Your task to perform on an android device: Open accessibility settings Image 0: 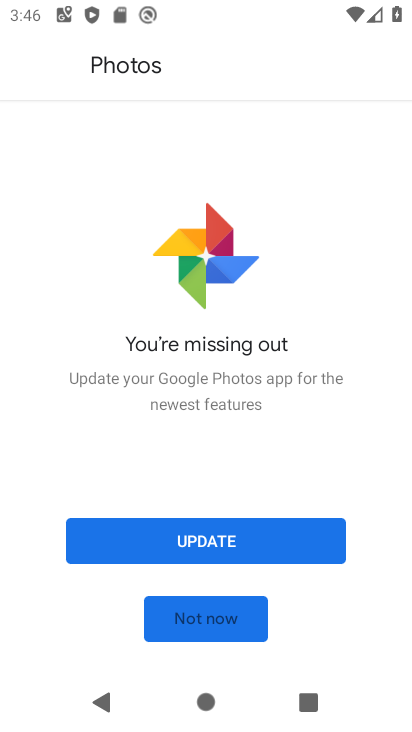
Step 0: press back button
Your task to perform on an android device: Open accessibility settings Image 1: 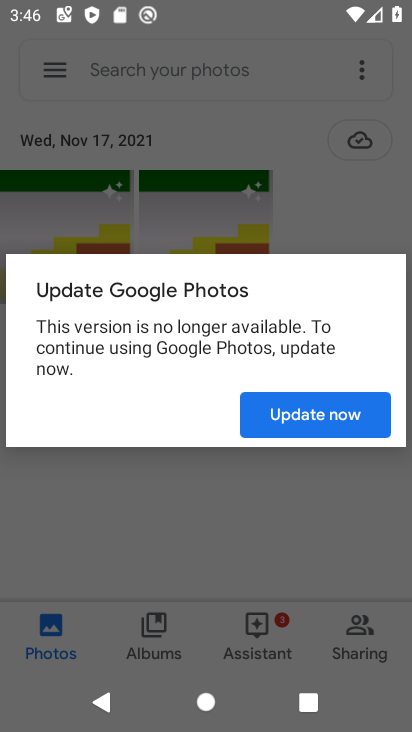
Step 1: press back button
Your task to perform on an android device: Open accessibility settings Image 2: 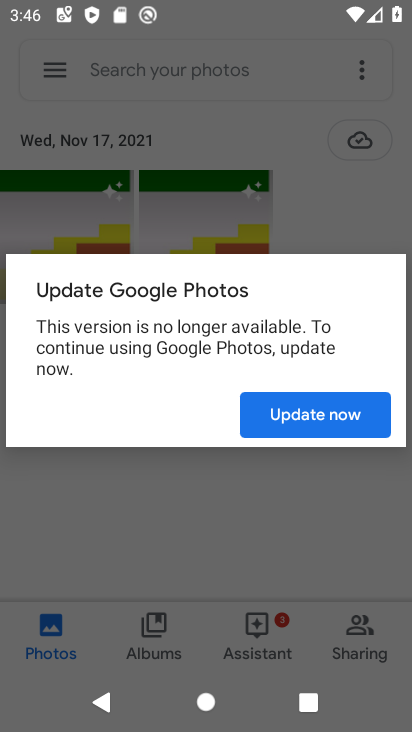
Step 2: press back button
Your task to perform on an android device: Open accessibility settings Image 3: 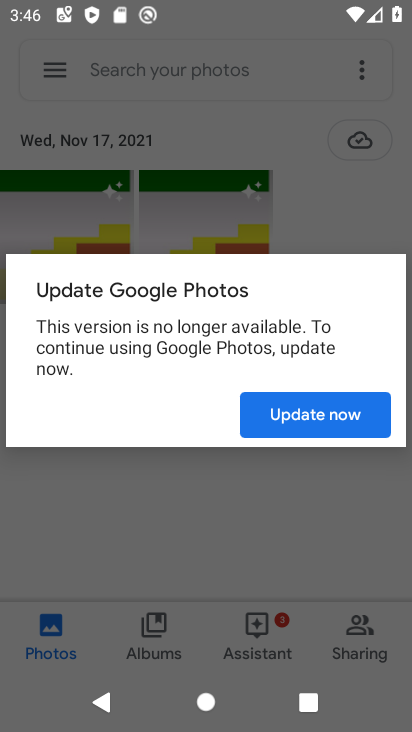
Step 3: press home button
Your task to perform on an android device: Open accessibility settings Image 4: 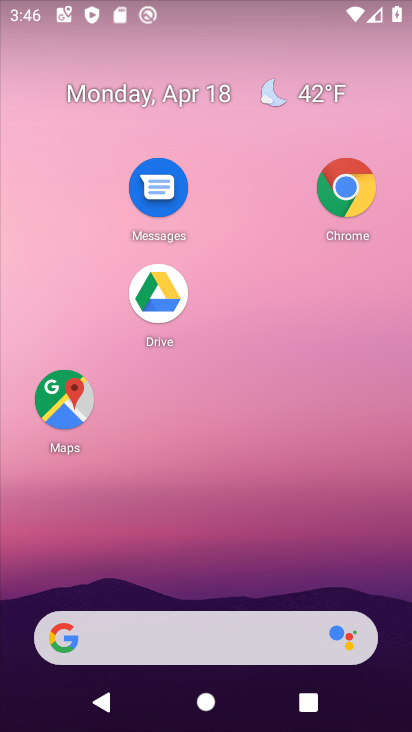
Step 4: drag from (222, 512) to (255, 13)
Your task to perform on an android device: Open accessibility settings Image 5: 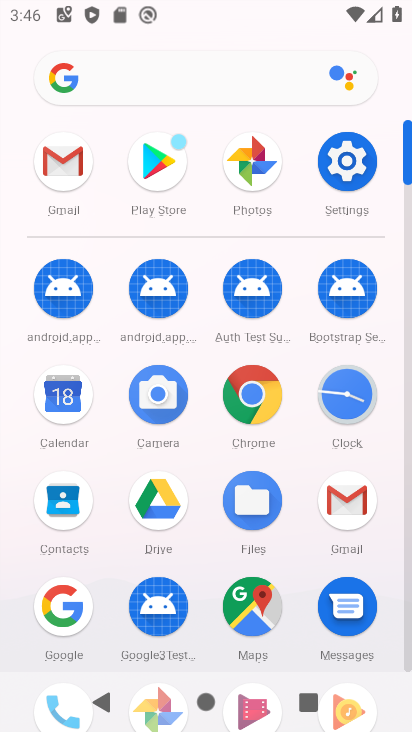
Step 5: click (343, 171)
Your task to perform on an android device: Open accessibility settings Image 6: 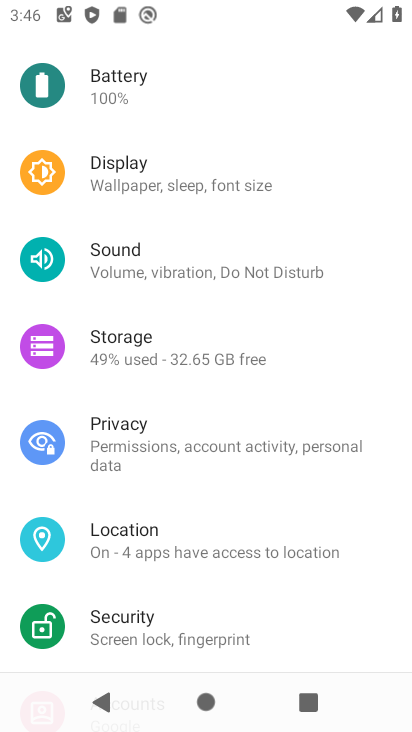
Step 6: drag from (195, 421) to (180, 347)
Your task to perform on an android device: Open accessibility settings Image 7: 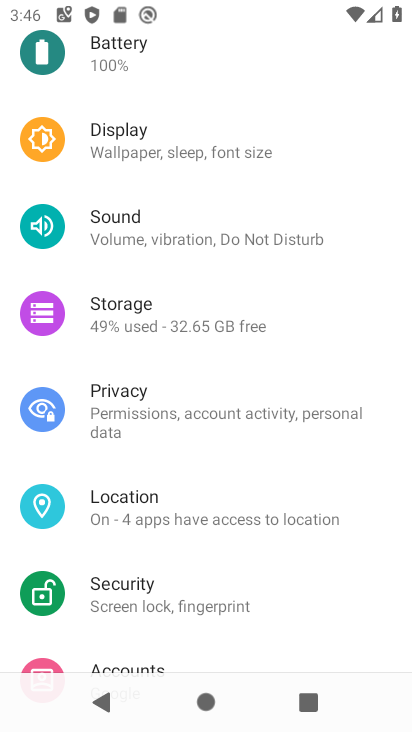
Step 7: drag from (214, 563) to (217, 490)
Your task to perform on an android device: Open accessibility settings Image 8: 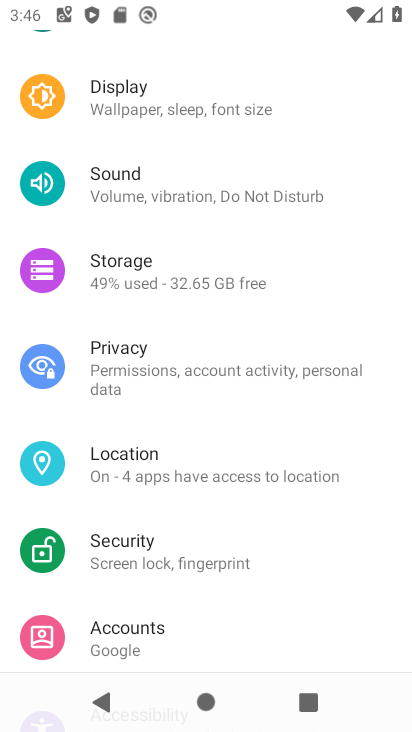
Step 8: drag from (232, 598) to (229, 525)
Your task to perform on an android device: Open accessibility settings Image 9: 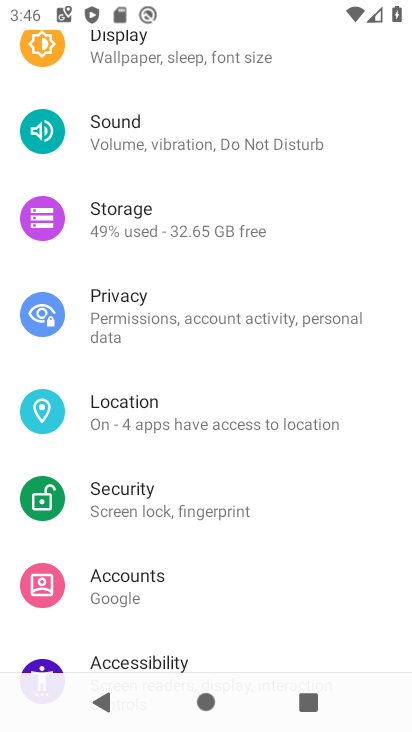
Step 9: drag from (240, 598) to (237, 499)
Your task to perform on an android device: Open accessibility settings Image 10: 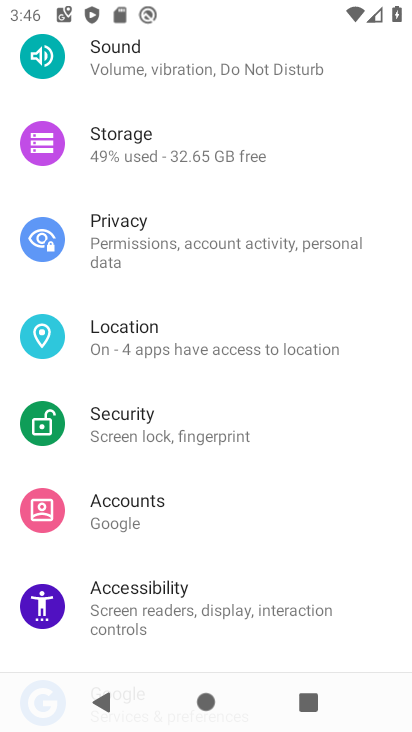
Step 10: click (149, 583)
Your task to perform on an android device: Open accessibility settings Image 11: 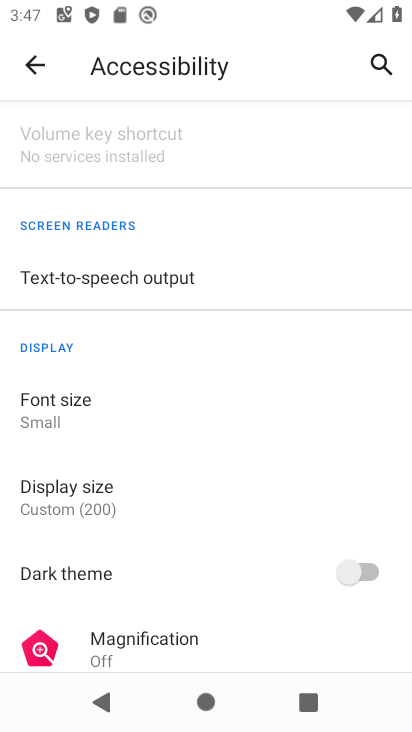
Step 11: task complete